Your task to perform on an android device: Go to network settings Image 0: 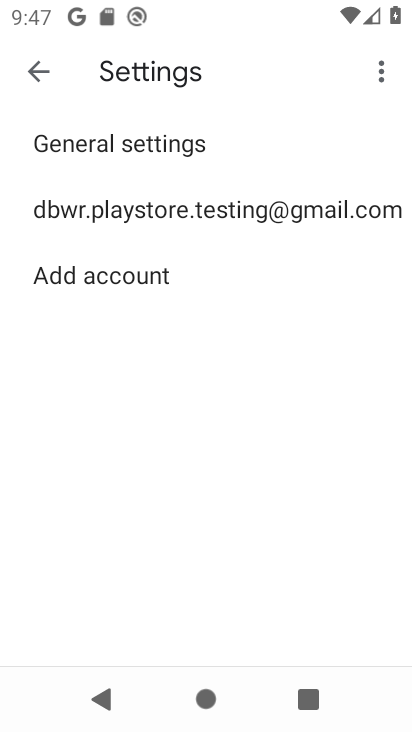
Step 0: press home button
Your task to perform on an android device: Go to network settings Image 1: 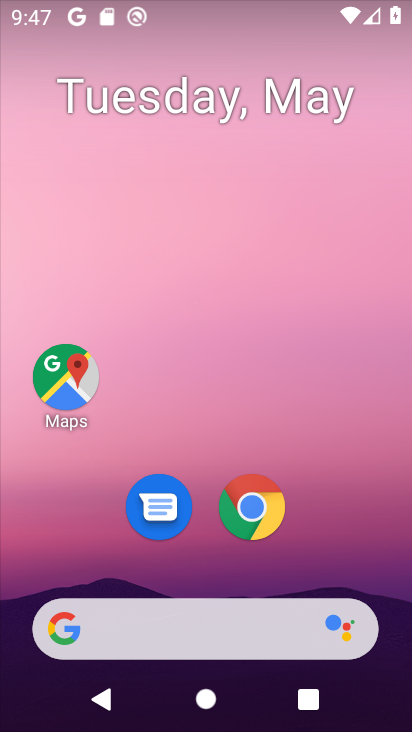
Step 1: drag from (311, 558) to (262, 189)
Your task to perform on an android device: Go to network settings Image 2: 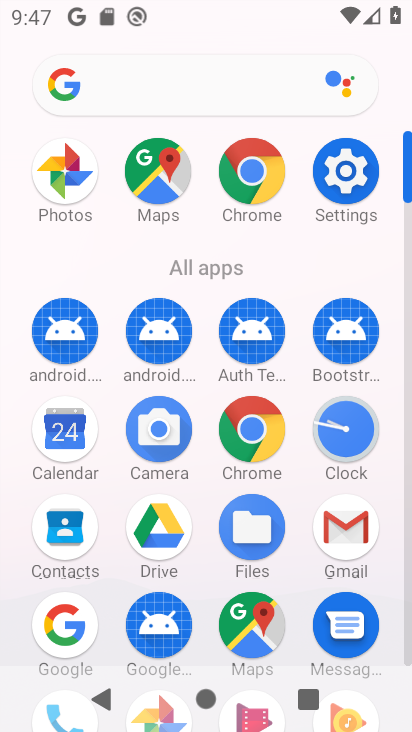
Step 2: click (345, 167)
Your task to perform on an android device: Go to network settings Image 3: 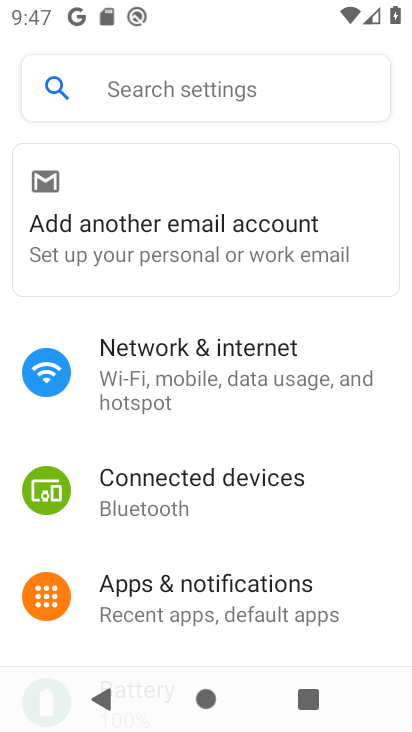
Step 3: click (229, 370)
Your task to perform on an android device: Go to network settings Image 4: 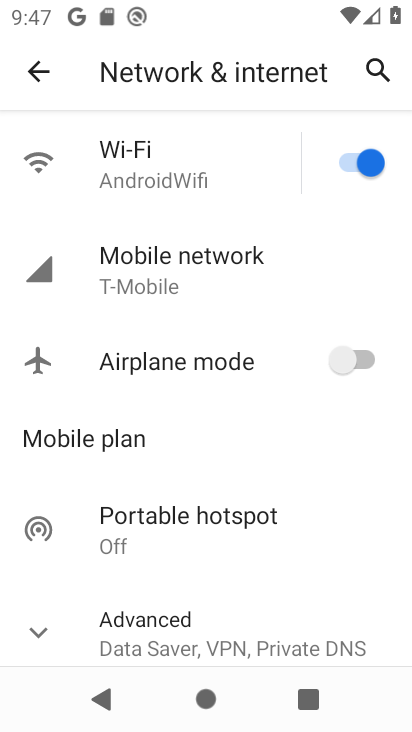
Step 4: task complete